Your task to perform on an android device: Go to internet settings Image 0: 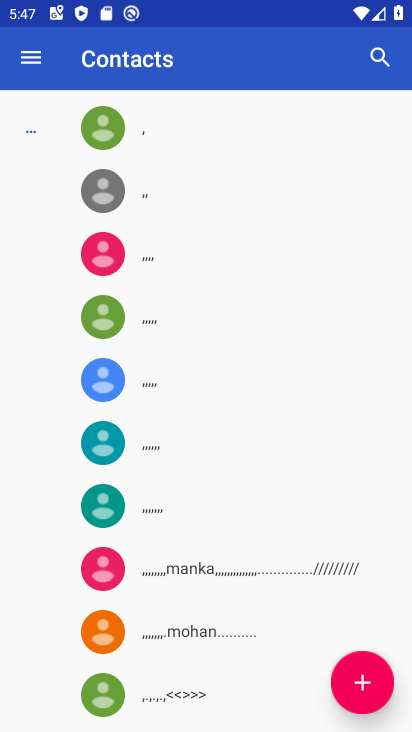
Step 0: press home button
Your task to perform on an android device: Go to internet settings Image 1: 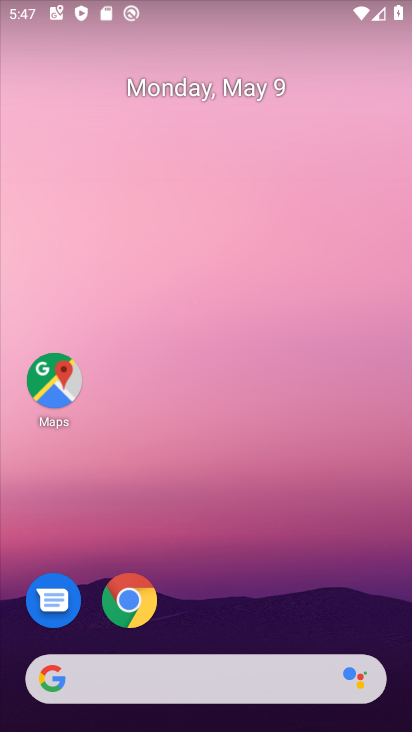
Step 1: drag from (250, 623) to (328, 2)
Your task to perform on an android device: Go to internet settings Image 2: 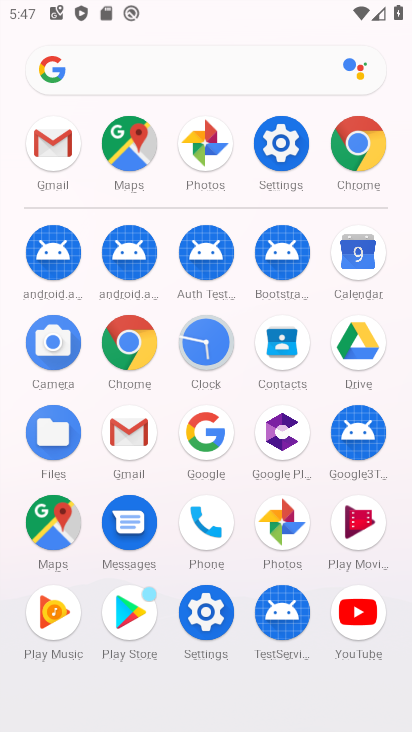
Step 2: click (280, 178)
Your task to perform on an android device: Go to internet settings Image 3: 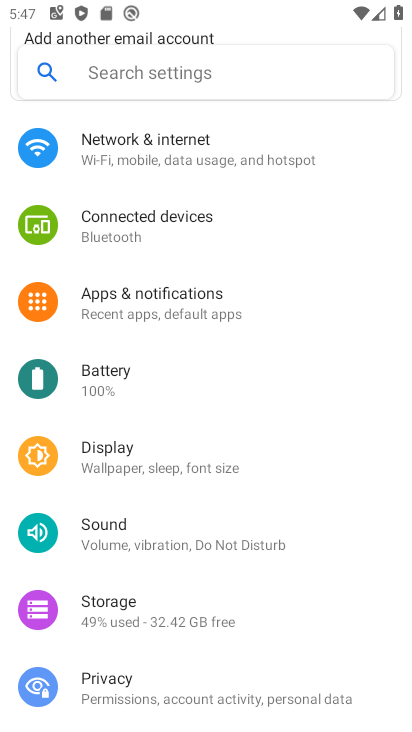
Step 3: click (212, 162)
Your task to perform on an android device: Go to internet settings Image 4: 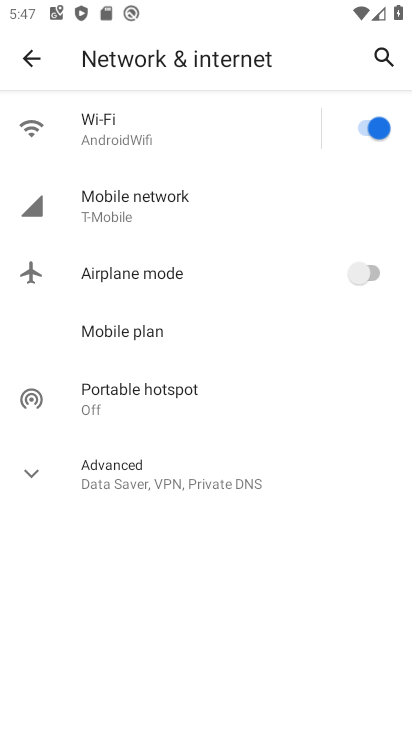
Step 4: click (108, 476)
Your task to perform on an android device: Go to internet settings Image 5: 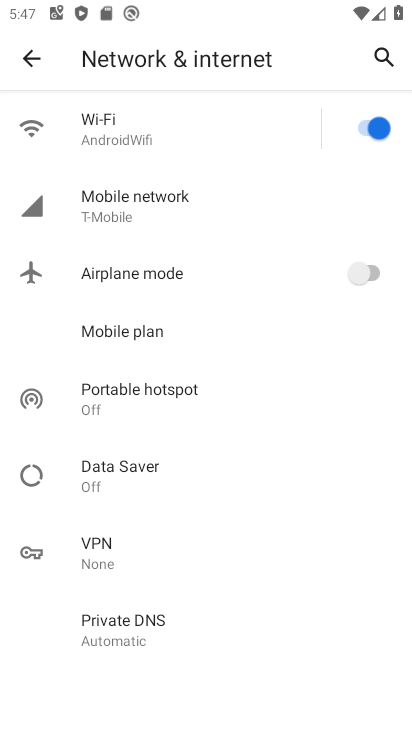
Step 5: task complete